Your task to perform on an android device: Open internet settings Image 0: 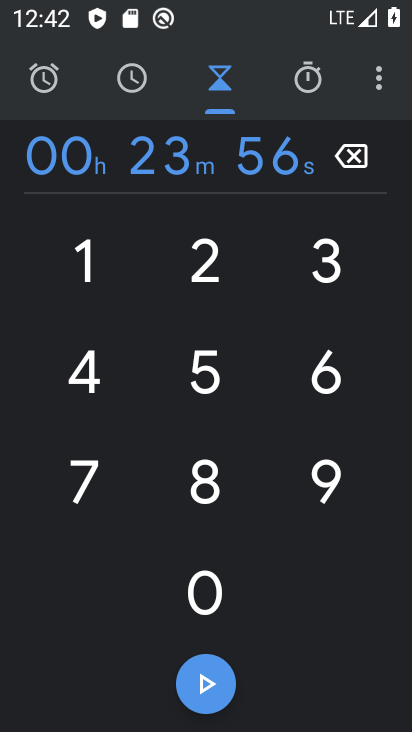
Step 0: press back button
Your task to perform on an android device: Open internet settings Image 1: 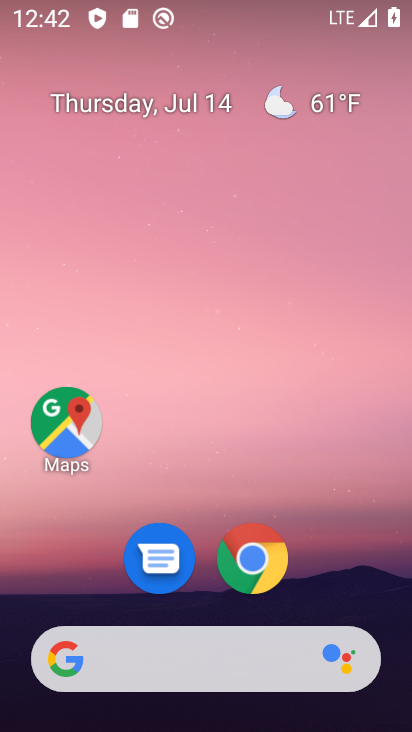
Step 1: drag from (75, 579) to (167, 116)
Your task to perform on an android device: Open internet settings Image 2: 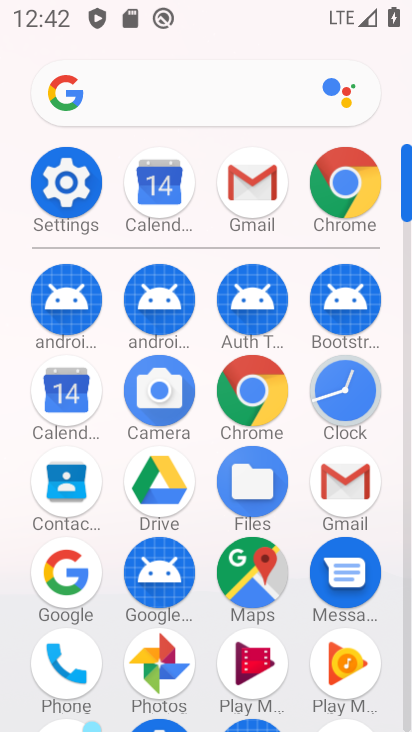
Step 2: click (71, 186)
Your task to perform on an android device: Open internet settings Image 3: 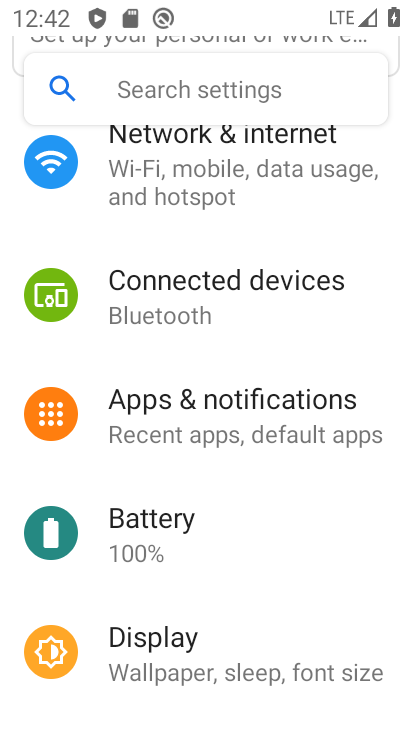
Step 3: drag from (290, 242) to (220, 680)
Your task to perform on an android device: Open internet settings Image 4: 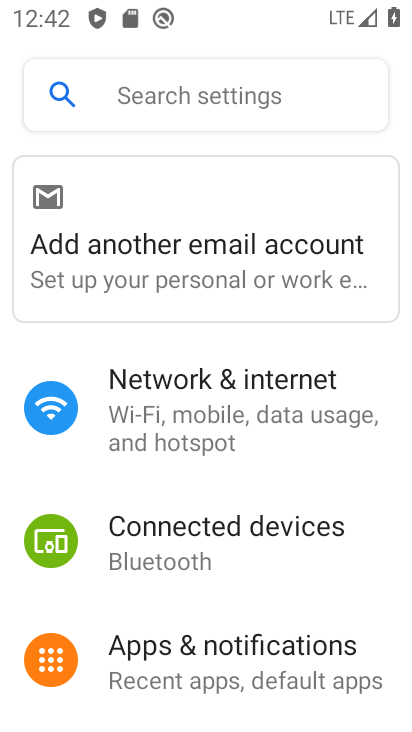
Step 4: click (230, 406)
Your task to perform on an android device: Open internet settings Image 5: 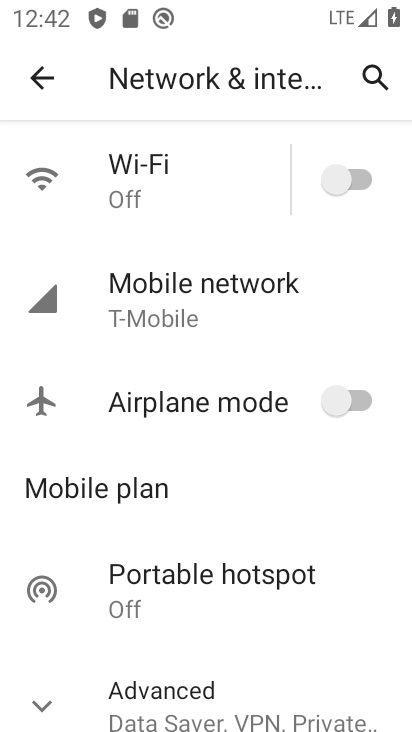
Step 5: task complete